Your task to perform on an android device: install app "The Home Depot" Image 0: 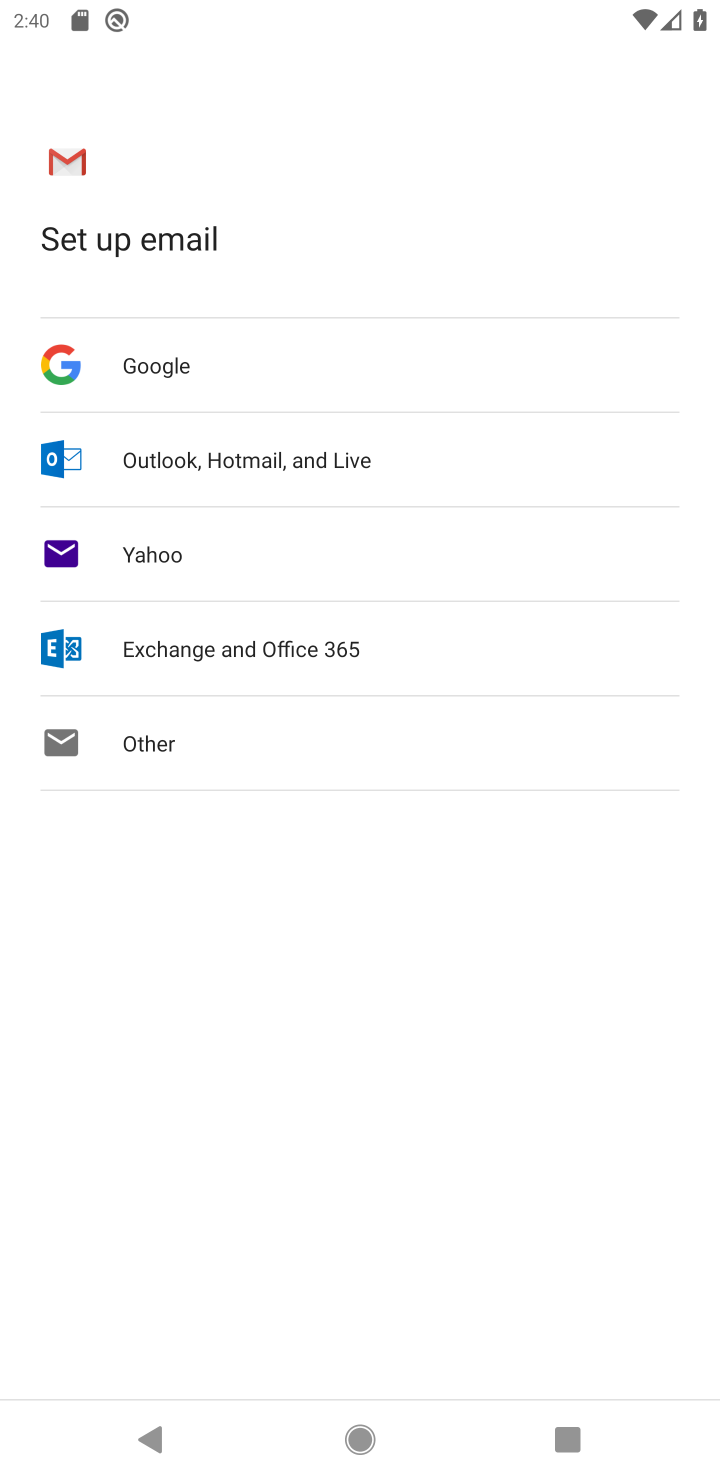
Step 0: press home button
Your task to perform on an android device: install app "The Home Depot" Image 1: 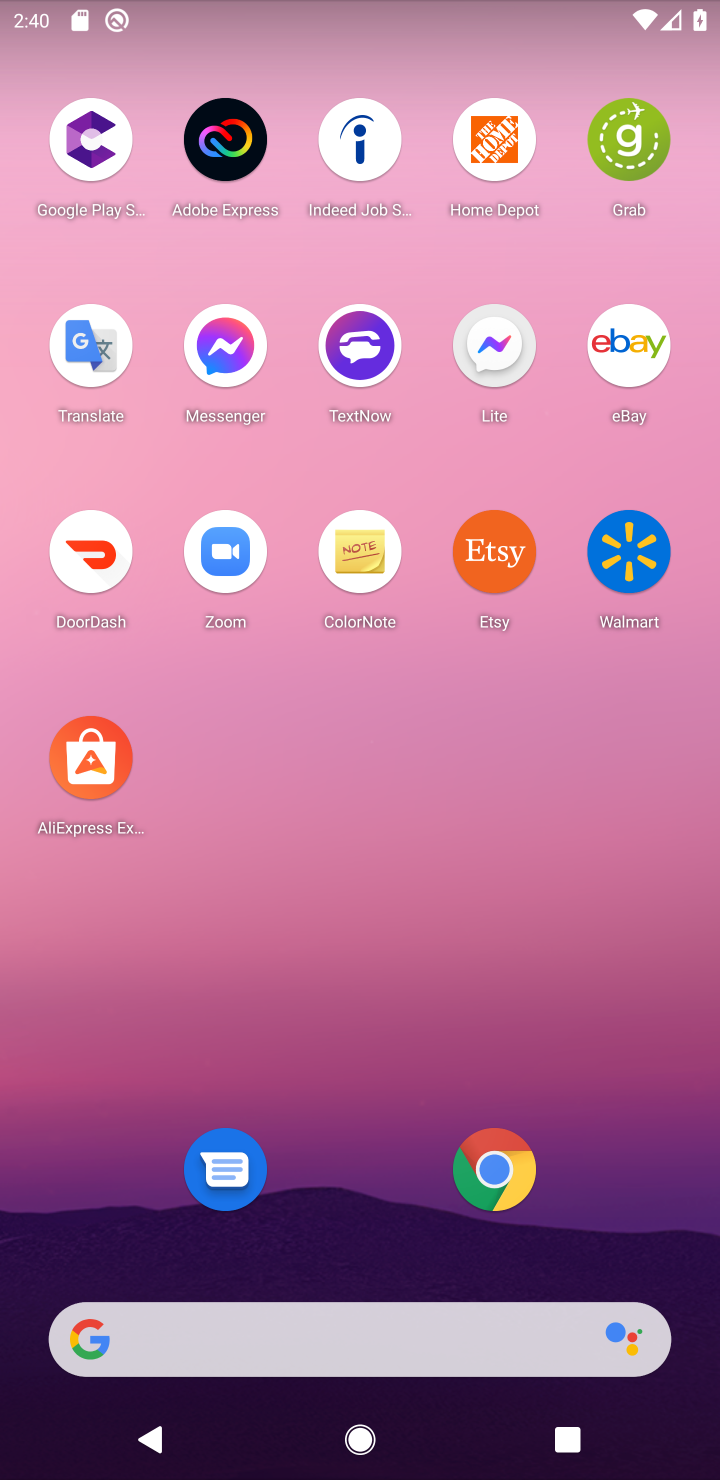
Step 1: drag from (346, 1200) to (361, 310)
Your task to perform on an android device: install app "The Home Depot" Image 2: 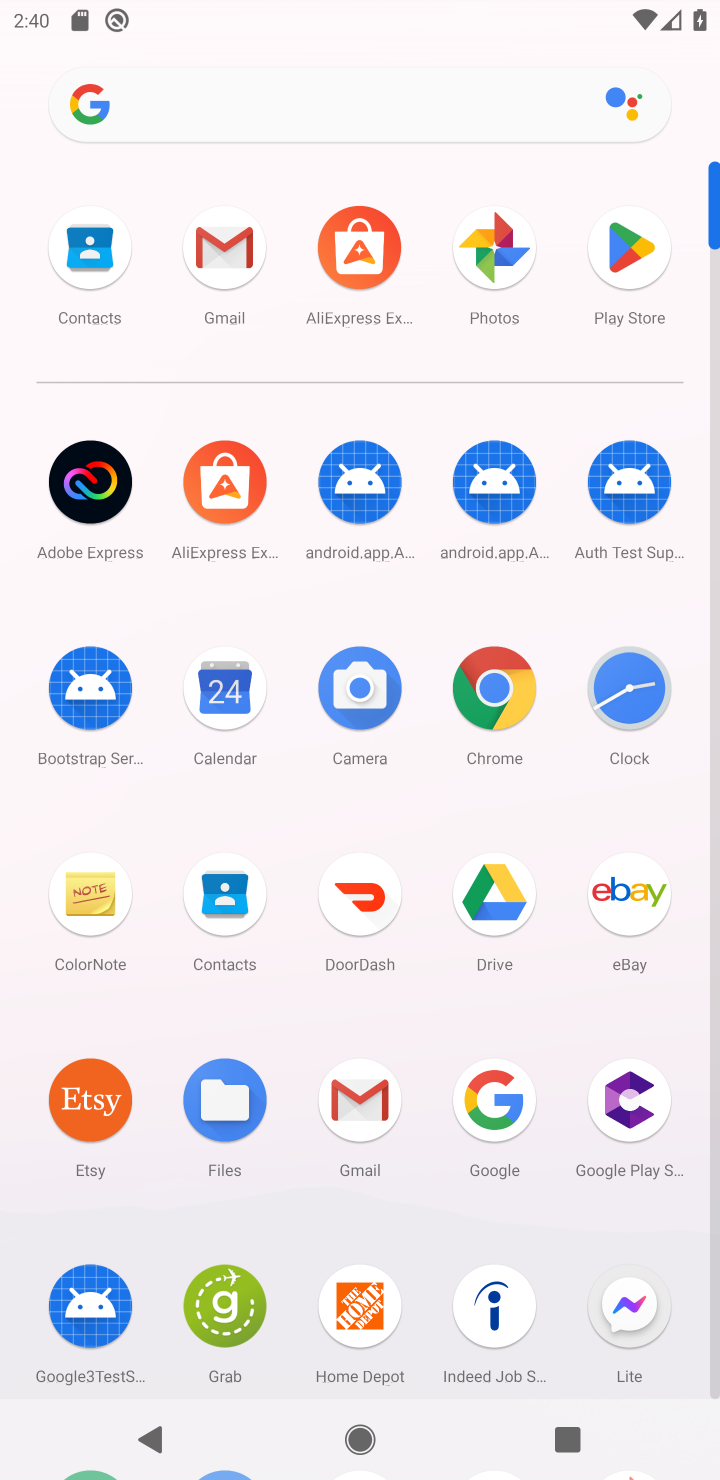
Step 2: click (622, 292)
Your task to perform on an android device: install app "The Home Depot" Image 3: 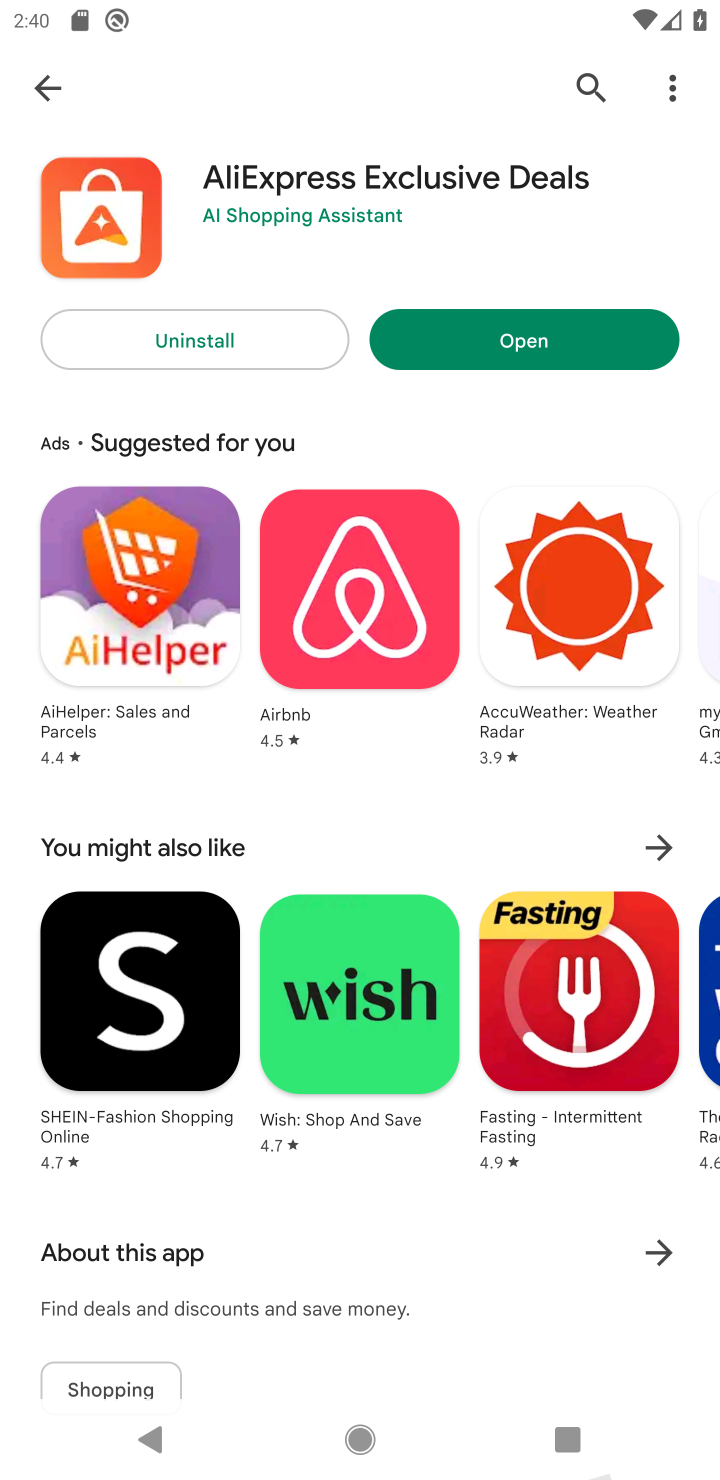
Step 3: click (25, 71)
Your task to perform on an android device: install app "The Home Depot" Image 4: 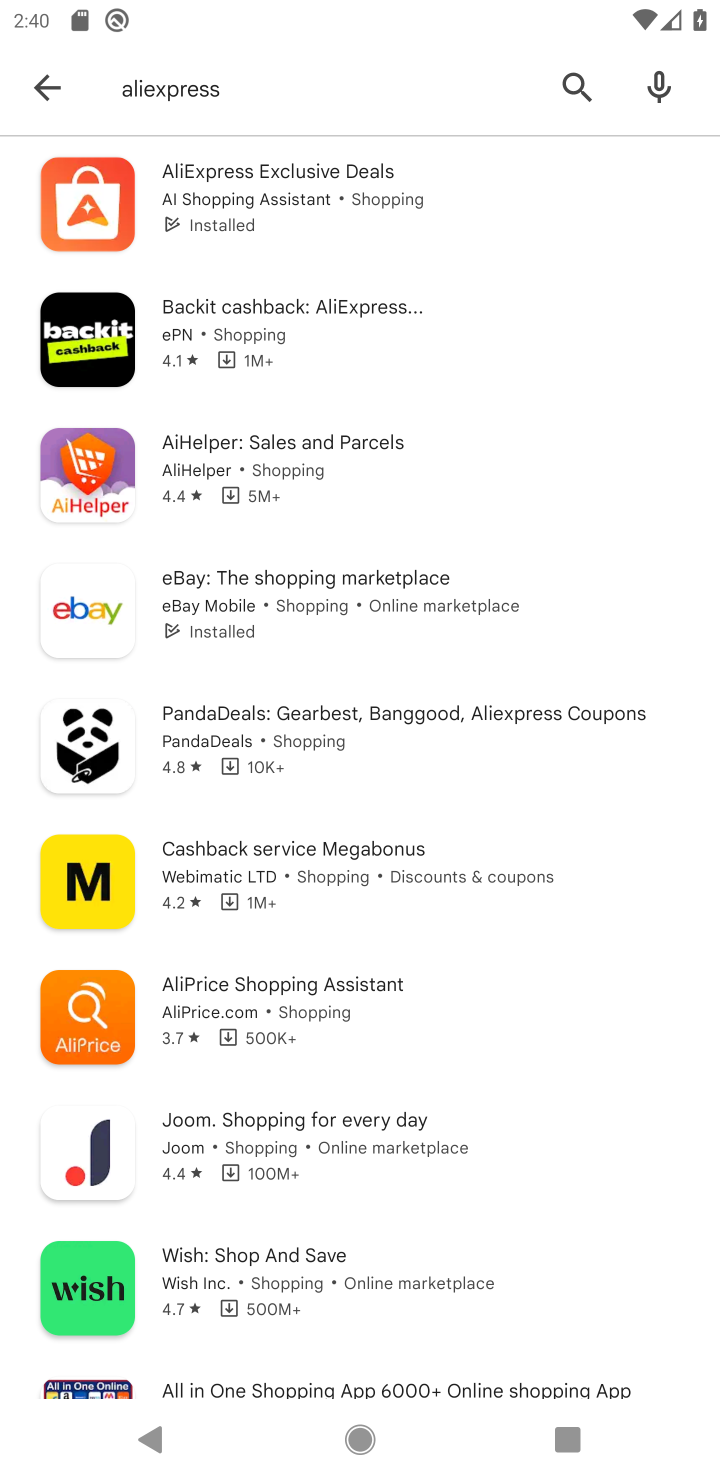
Step 4: click (25, 71)
Your task to perform on an android device: install app "The Home Depot" Image 5: 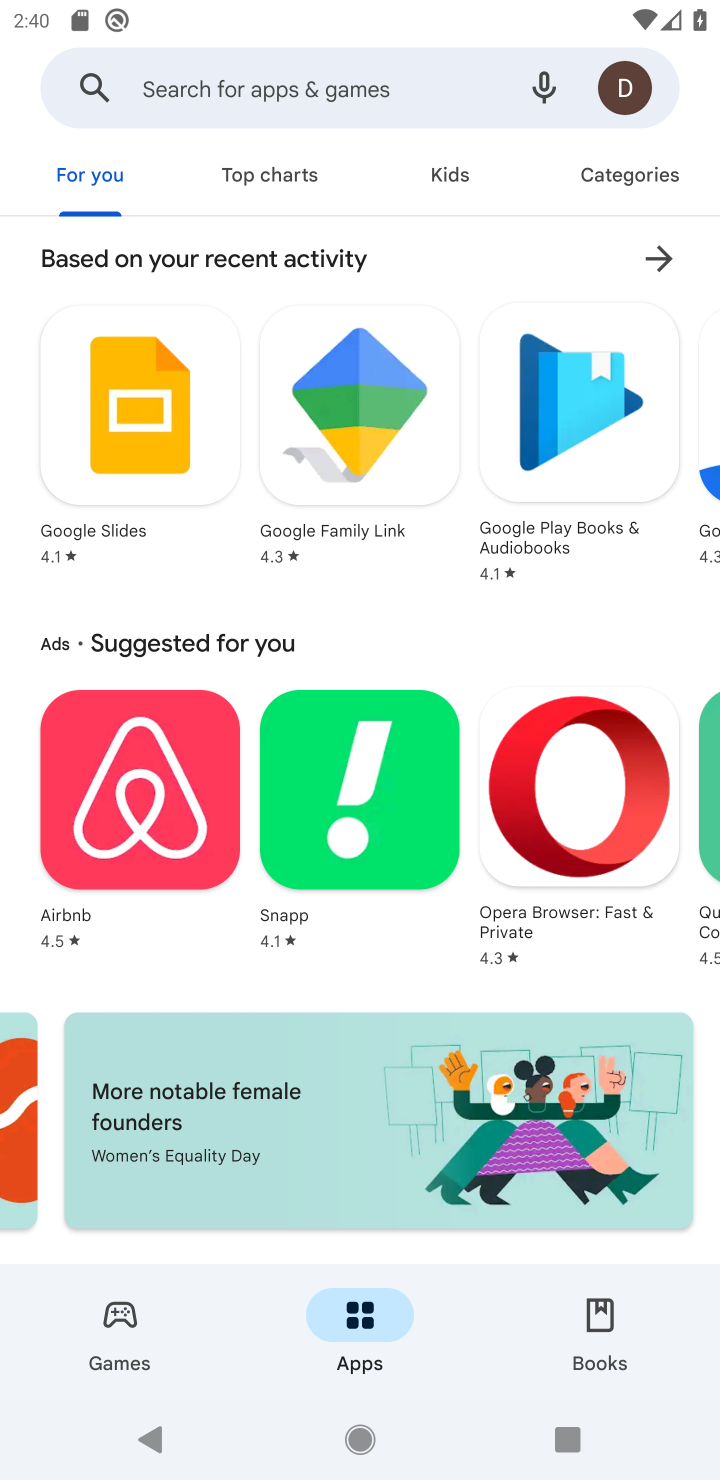
Step 5: click (168, 102)
Your task to perform on an android device: install app "The Home Depot" Image 6: 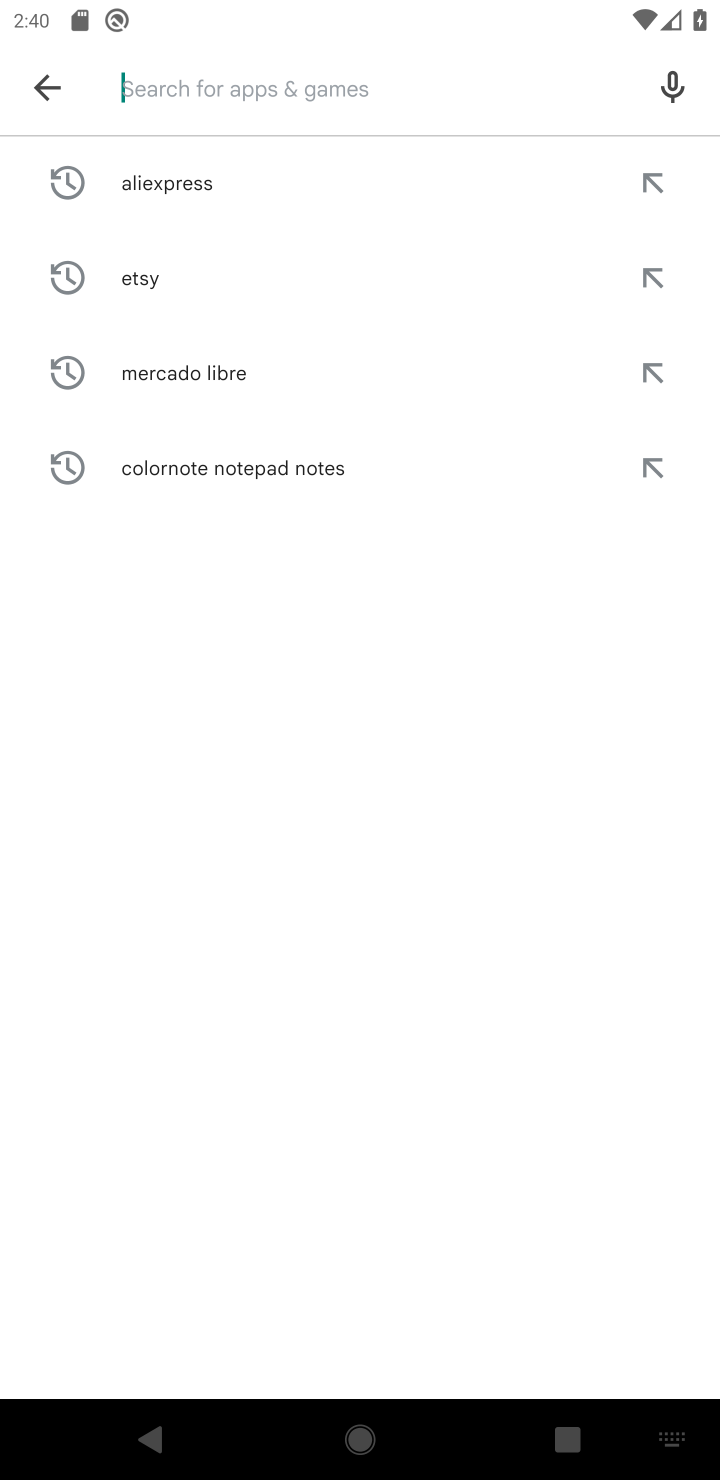
Step 6: type "The Home Depot"
Your task to perform on an android device: install app "The Home Depot" Image 7: 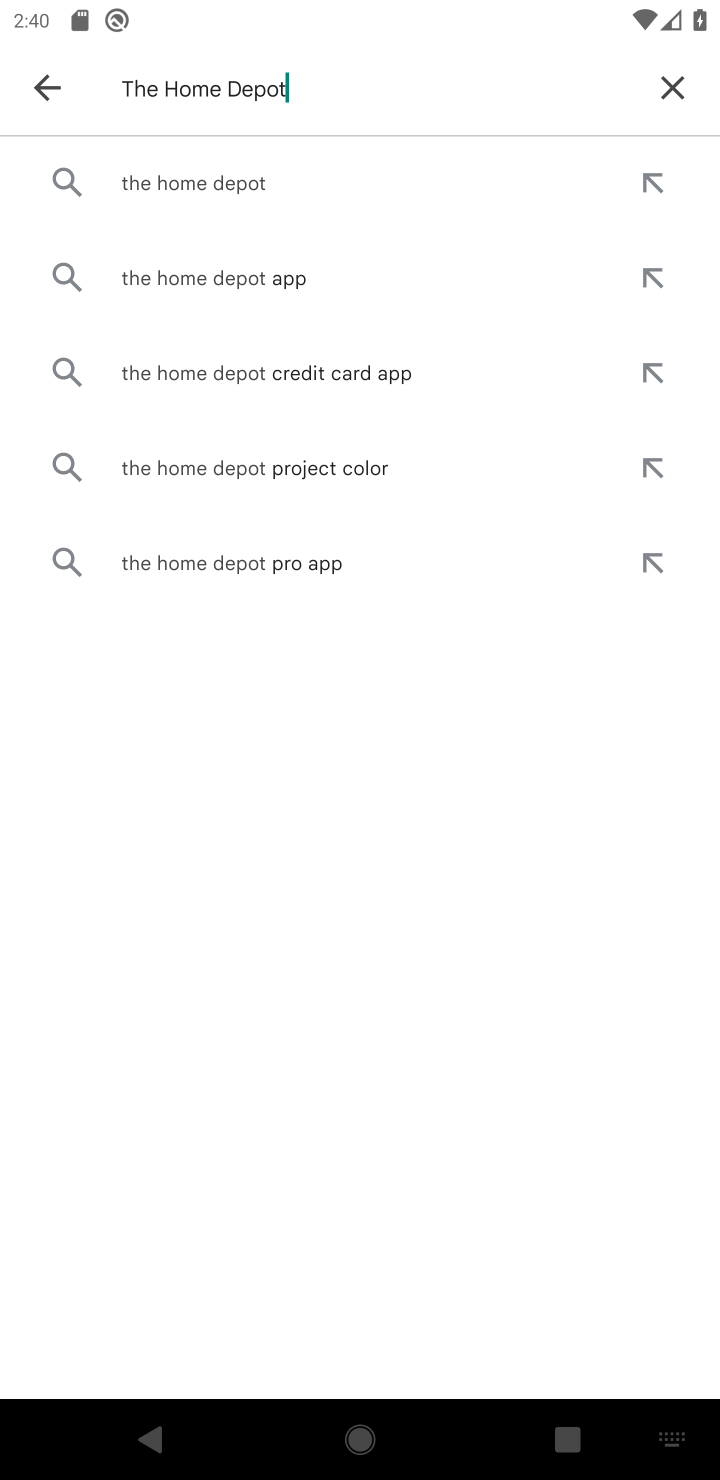
Step 7: click (346, 163)
Your task to perform on an android device: install app "The Home Depot" Image 8: 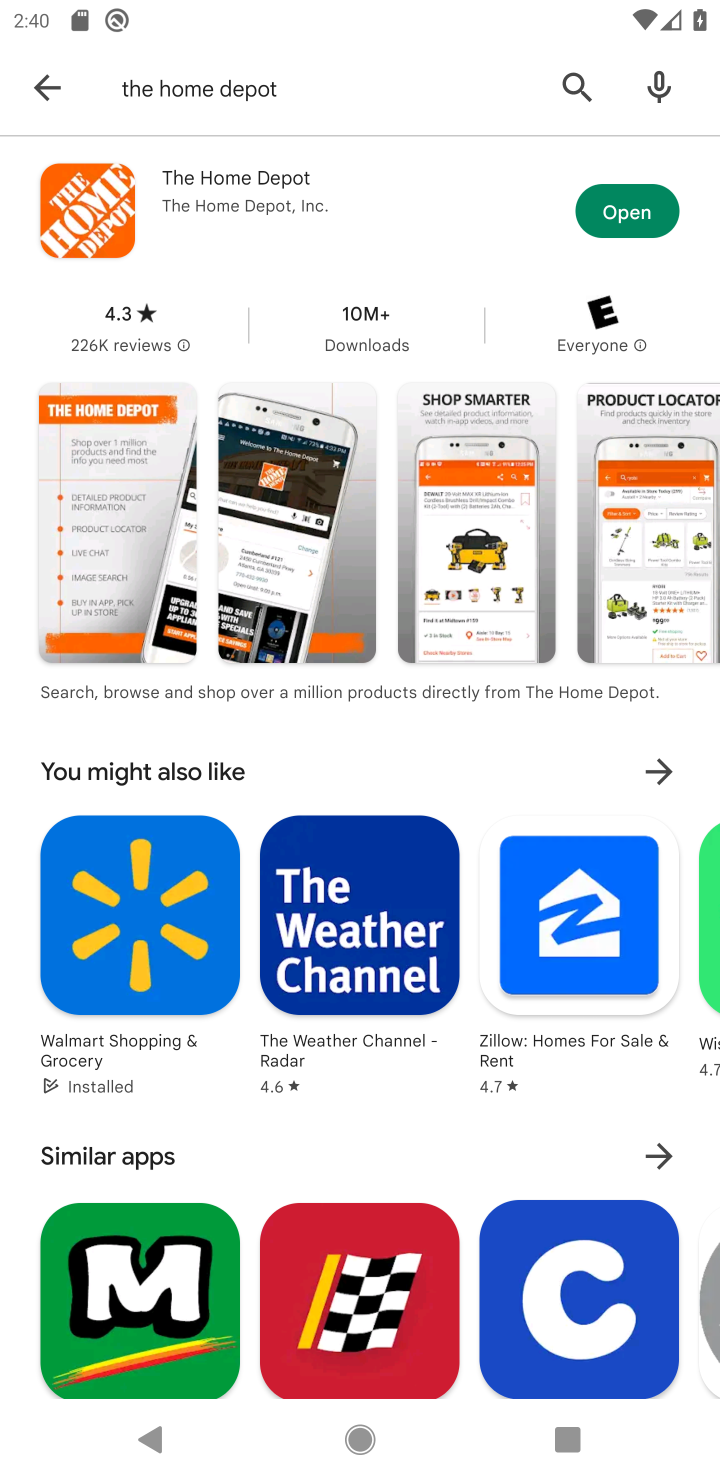
Step 8: click (621, 205)
Your task to perform on an android device: install app "The Home Depot" Image 9: 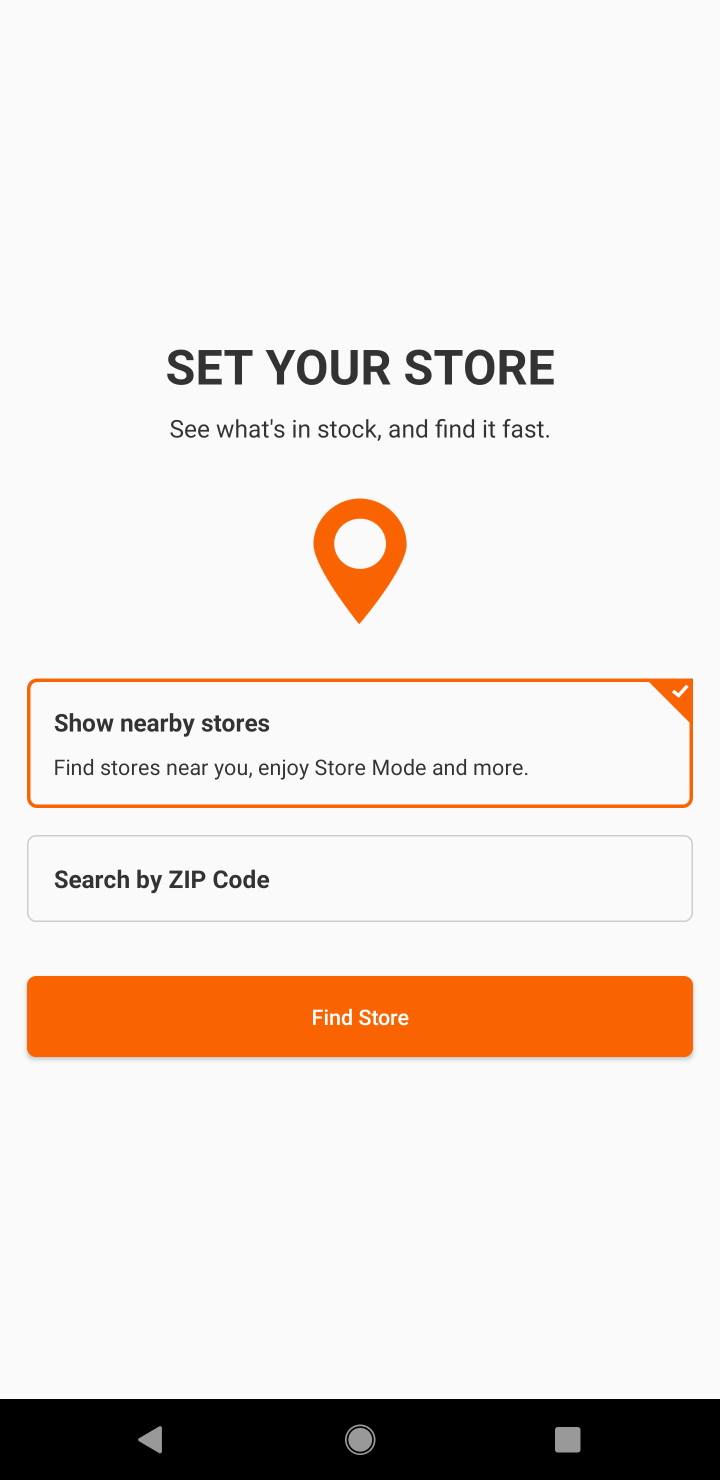
Step 9: task complete